Your task to perform on an android device: Open wifi settings Image 0: 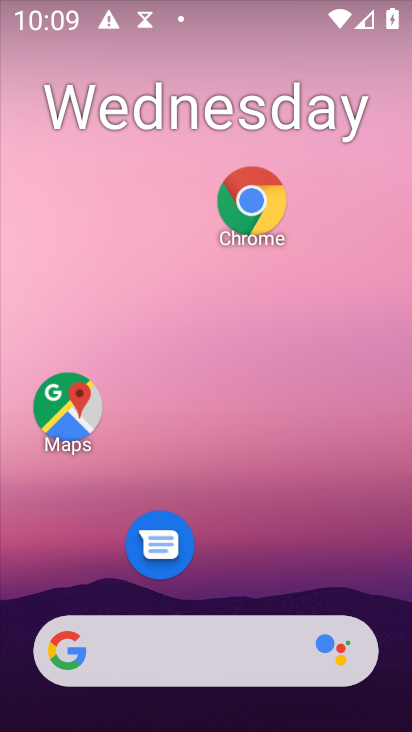
Step 0: drag from (322, 573) to (322, 11)
Your task to perform on an android device: Open wifi settings Image 1: 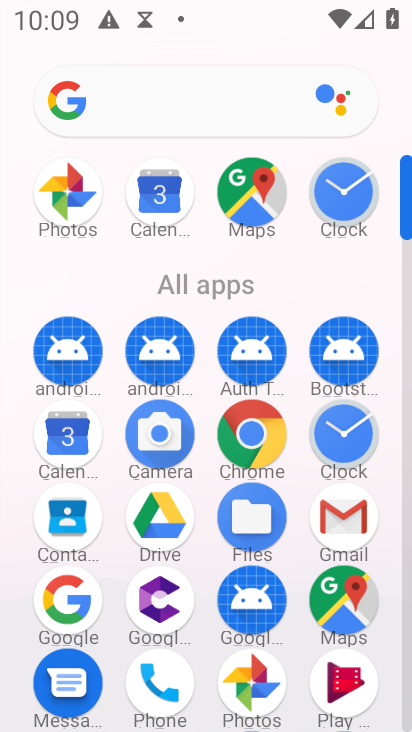
Step 1: drag from (200, 569) to (183, 261)
Your task to perform on an android device: Open wifi settings Image 2: 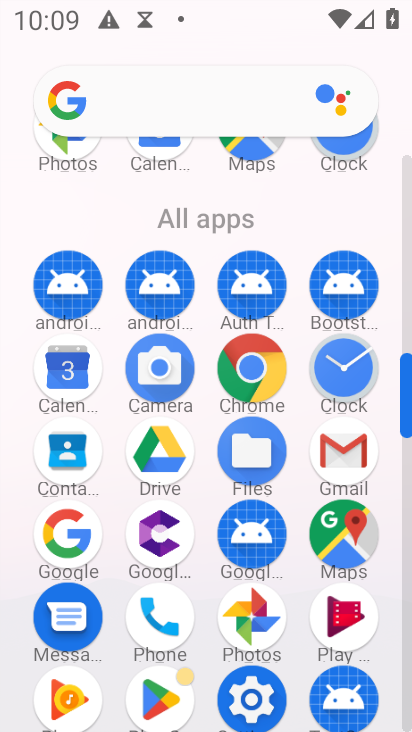
Step 2: click (260, 702)
Your task to perform on an android device: Open wifi settings Image 3: 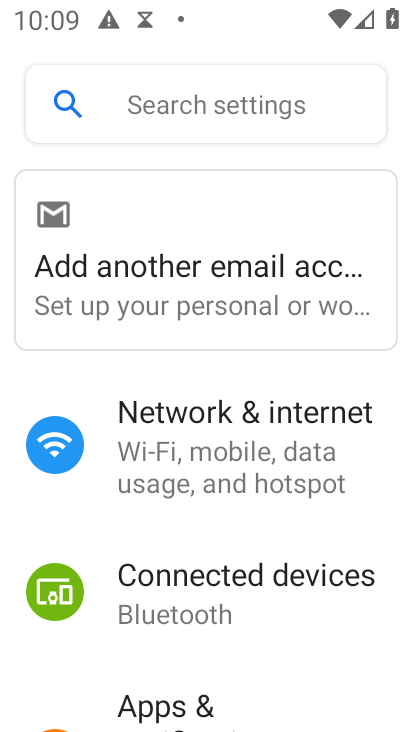
Step 3: click (257, 460)
Your task to perform on an android device: Open wifi settings Image 4: 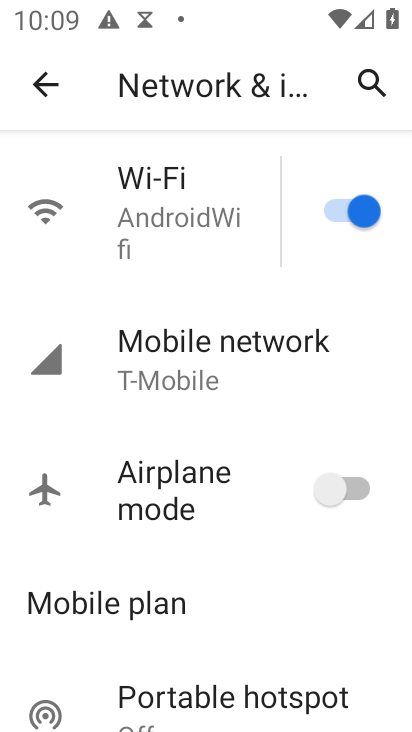
Step 4: click (123, 209)
Your task to perform on an android device: Open wifi settings Image 5: 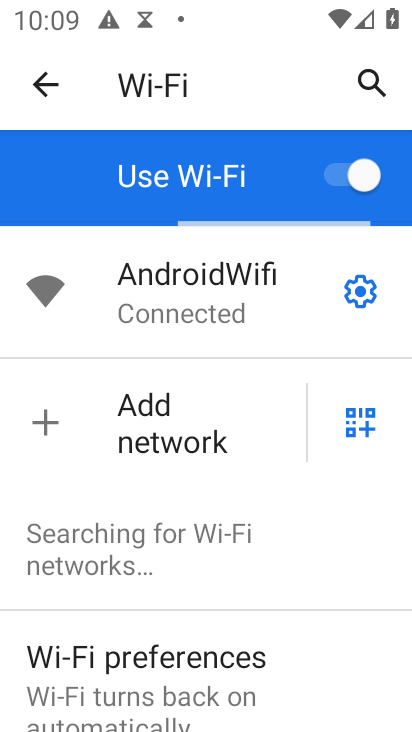
Step 5: task complete